Your task to perform on an android device: Search for "energizer triple a" on target.com, select the first entry, add it to the cart, then select checkout. Image 0: 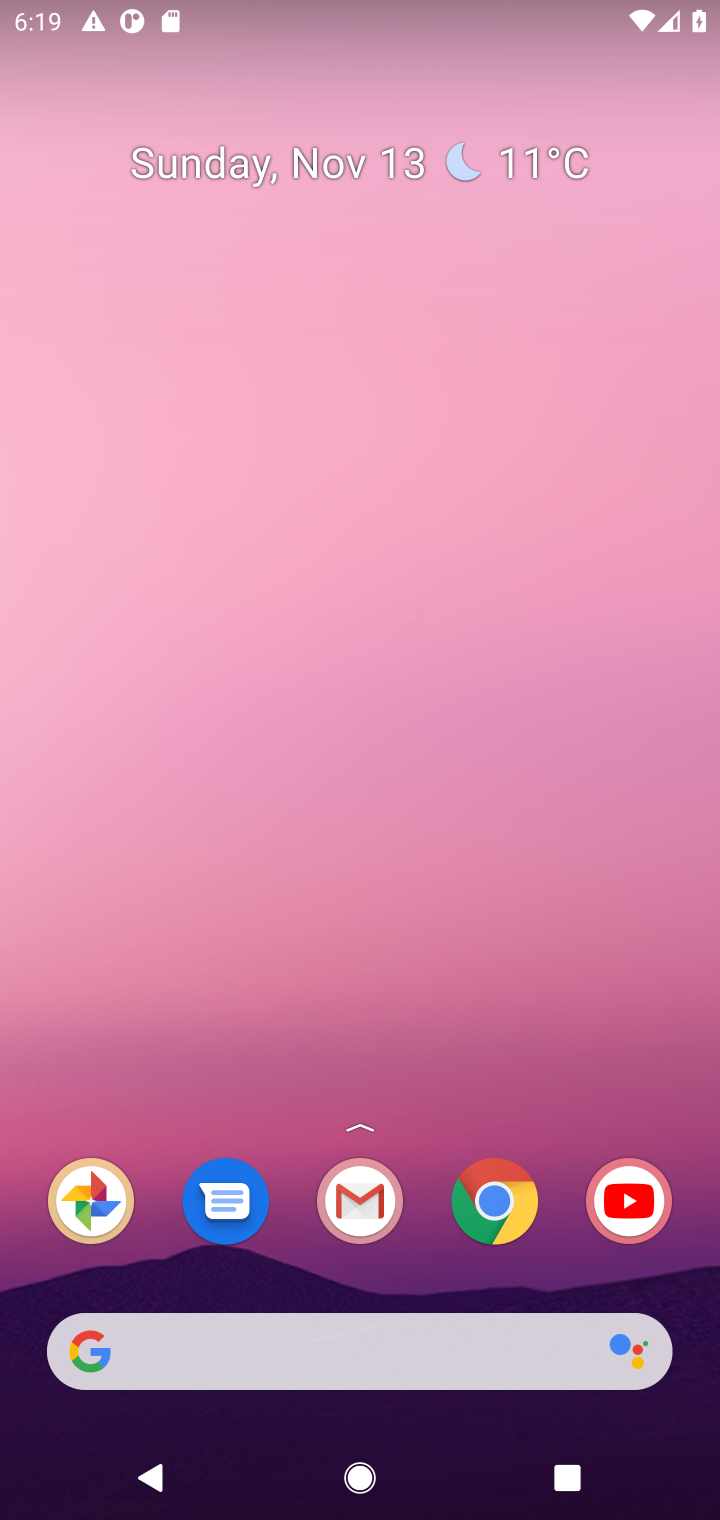
Step 0: drag from (404, 912) to (400, 187)
Your task to perform on an android device: Search for "energizer triple a" on target.com, select the first entry, add it to the cart, then select checkout. Image 1: 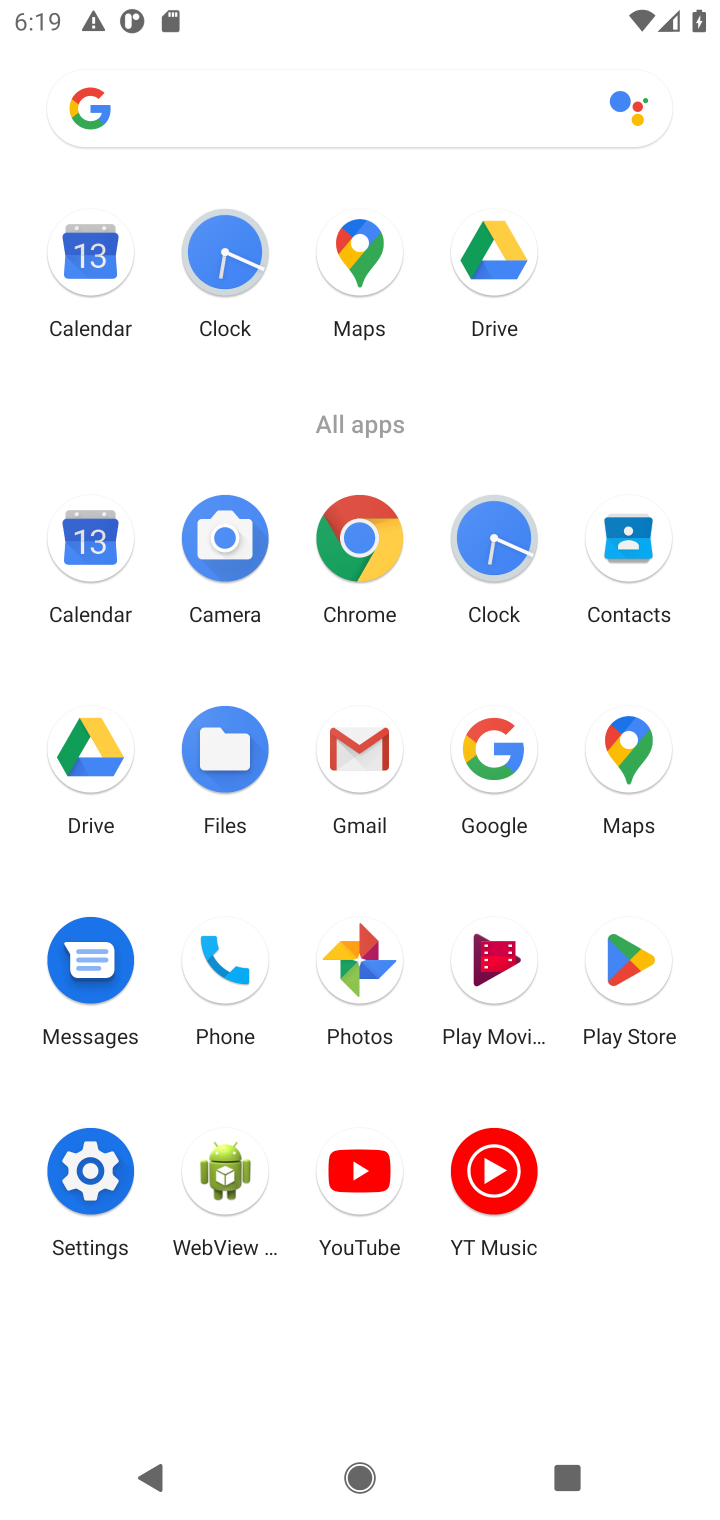
Step 1: click (355, 540)
Your task to perform on an android device: Search for "energizer triple a" on target.com, select the first entry, add it to the cart, then select checkout. Image 2: 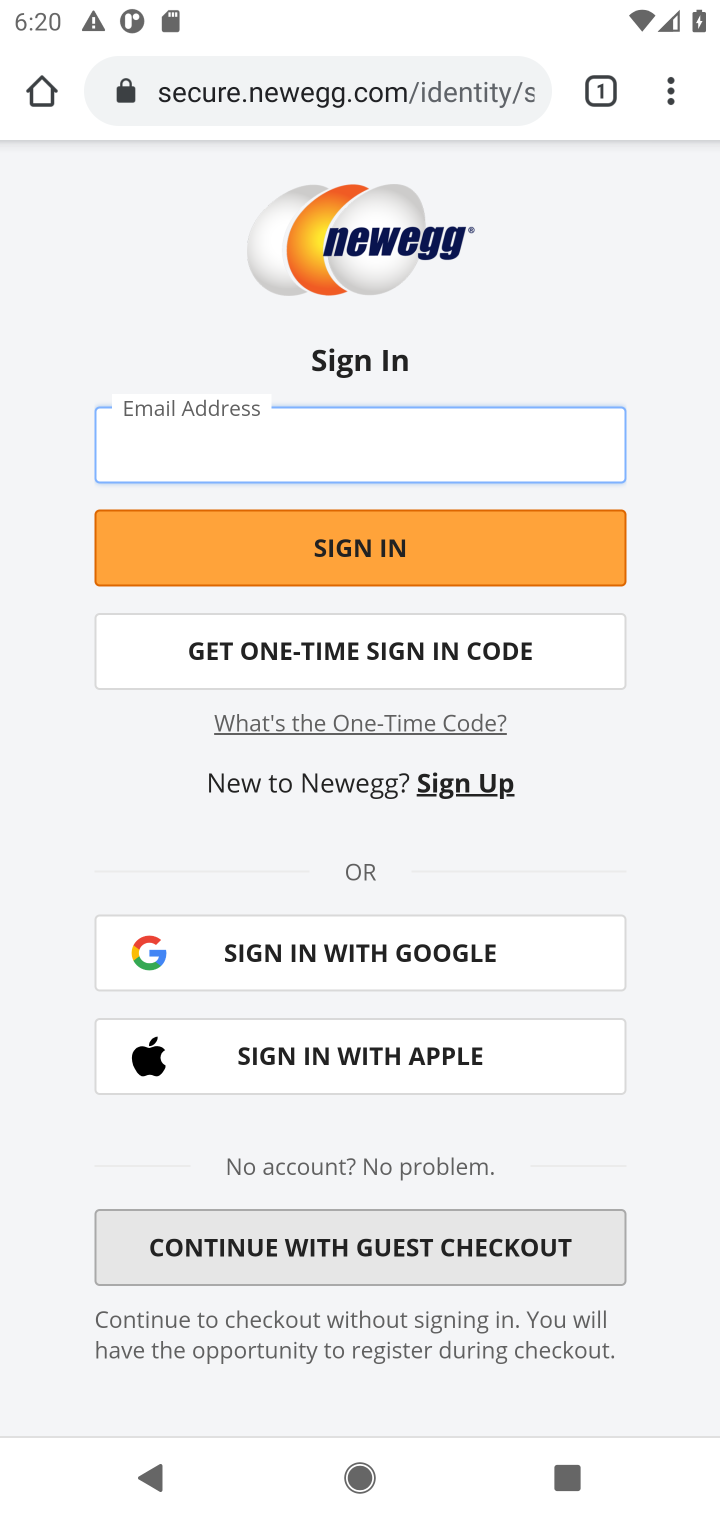
Step 2: click (291, 83)
Your task to perform on an android device: Search for "energizer triple a" on target.com, select the first entry, add it to the cart, then select checkout. Image 3: 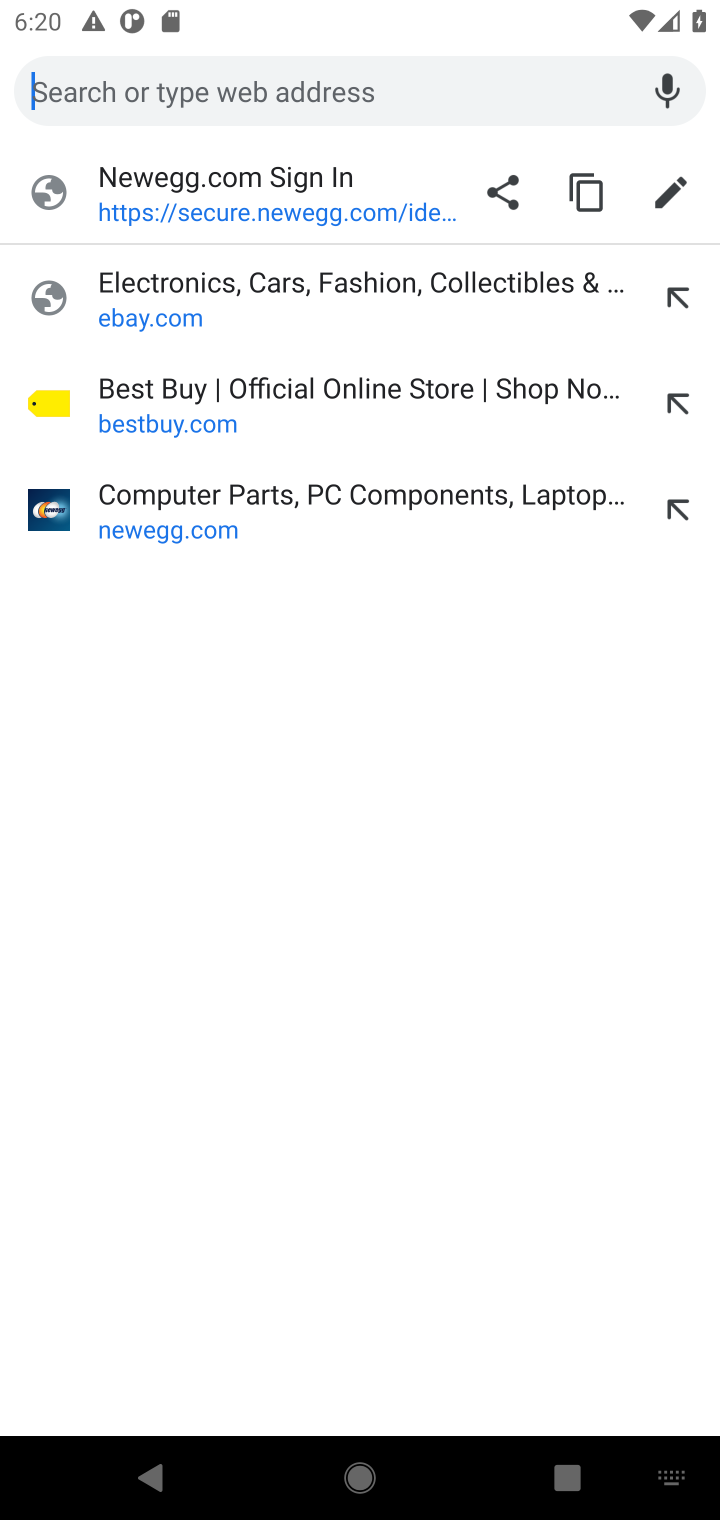
Step 3: type "target.com"
Your task to perform on an android device: Search for "energizer triple a" on target.com, select the first entry, add it to the cart, then select checkout. Image 4: 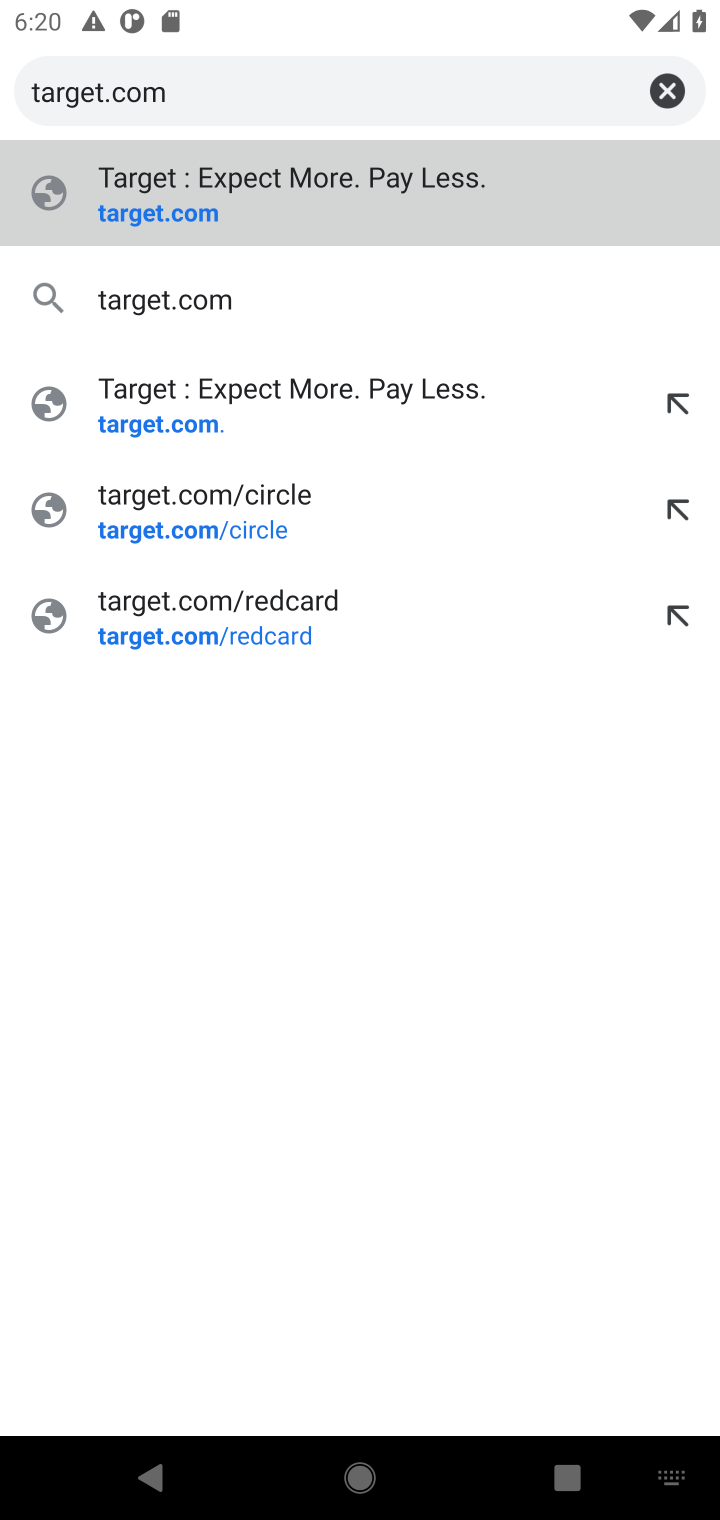
Step 4: press enter
Your task to perform on an android device: Search for "energizer triple a" on target.com, select the first entry, add it to the cart, then select checkout. Image 5: 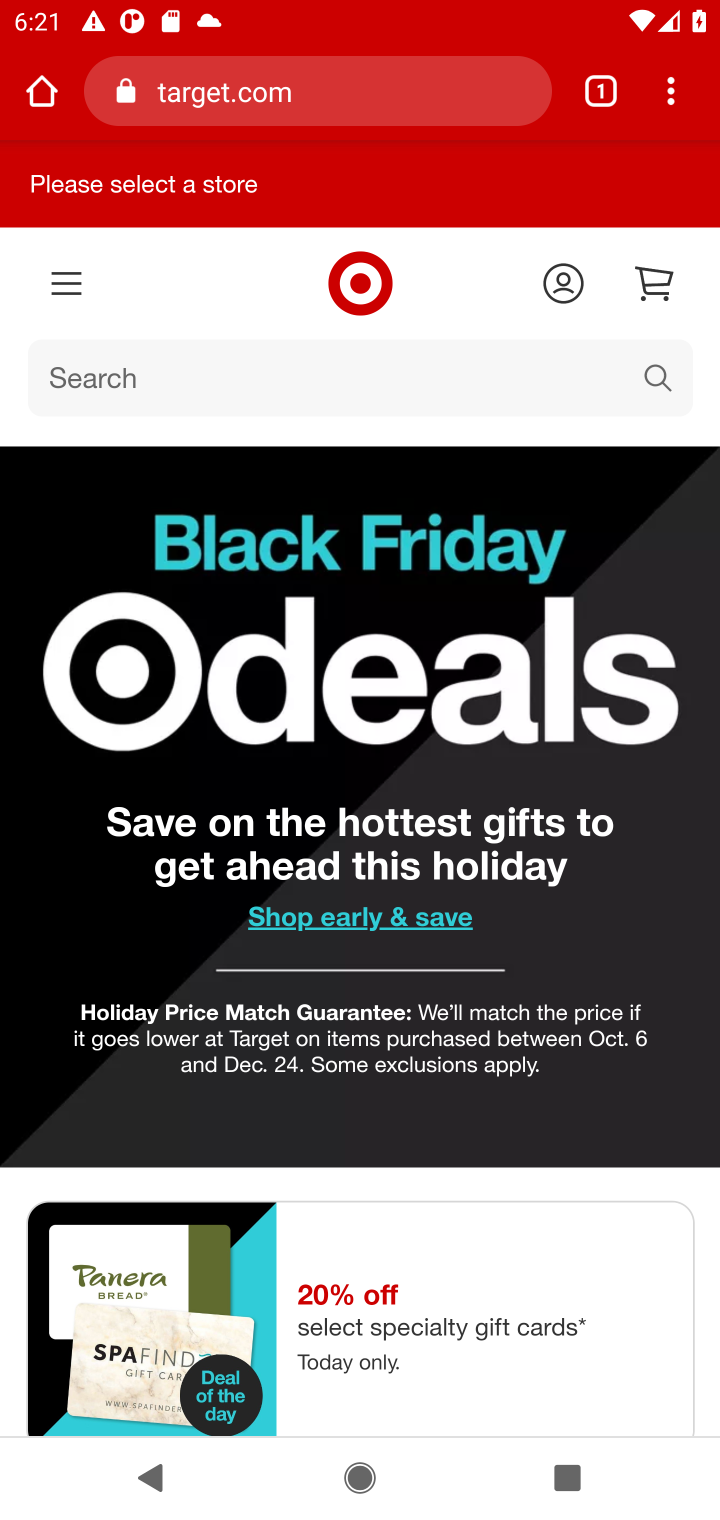
Step 5: click (255, 380)
Your task to perform on an android device: Search for "energizer triple a" on target.com, select the first entry, add it to the cart, then select checkout. Image 6: 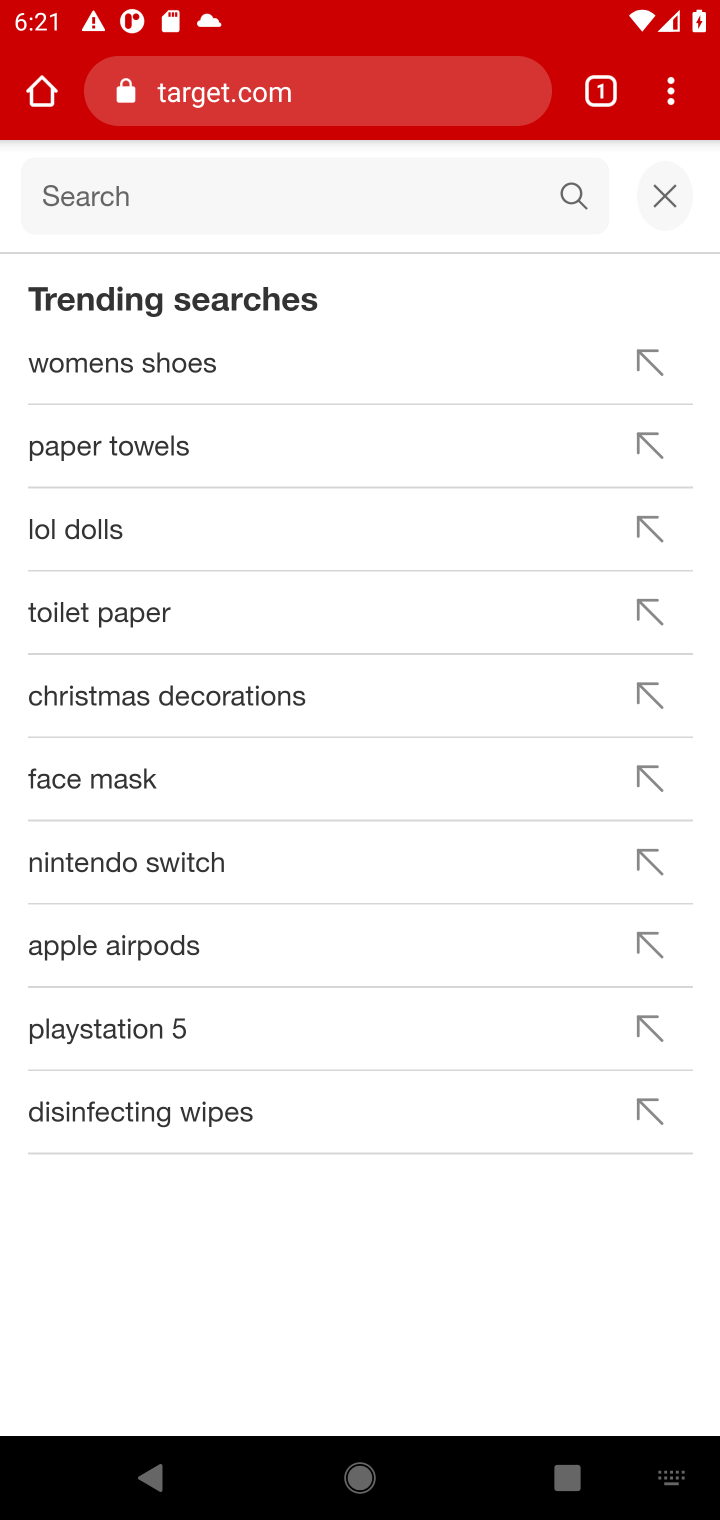
Step 6: type "energizer triple a"
Your task to perform on an android device: Search for "energizer triple a" on target.com, select the first entry, add it to the cart, then select checkout. Image 7: 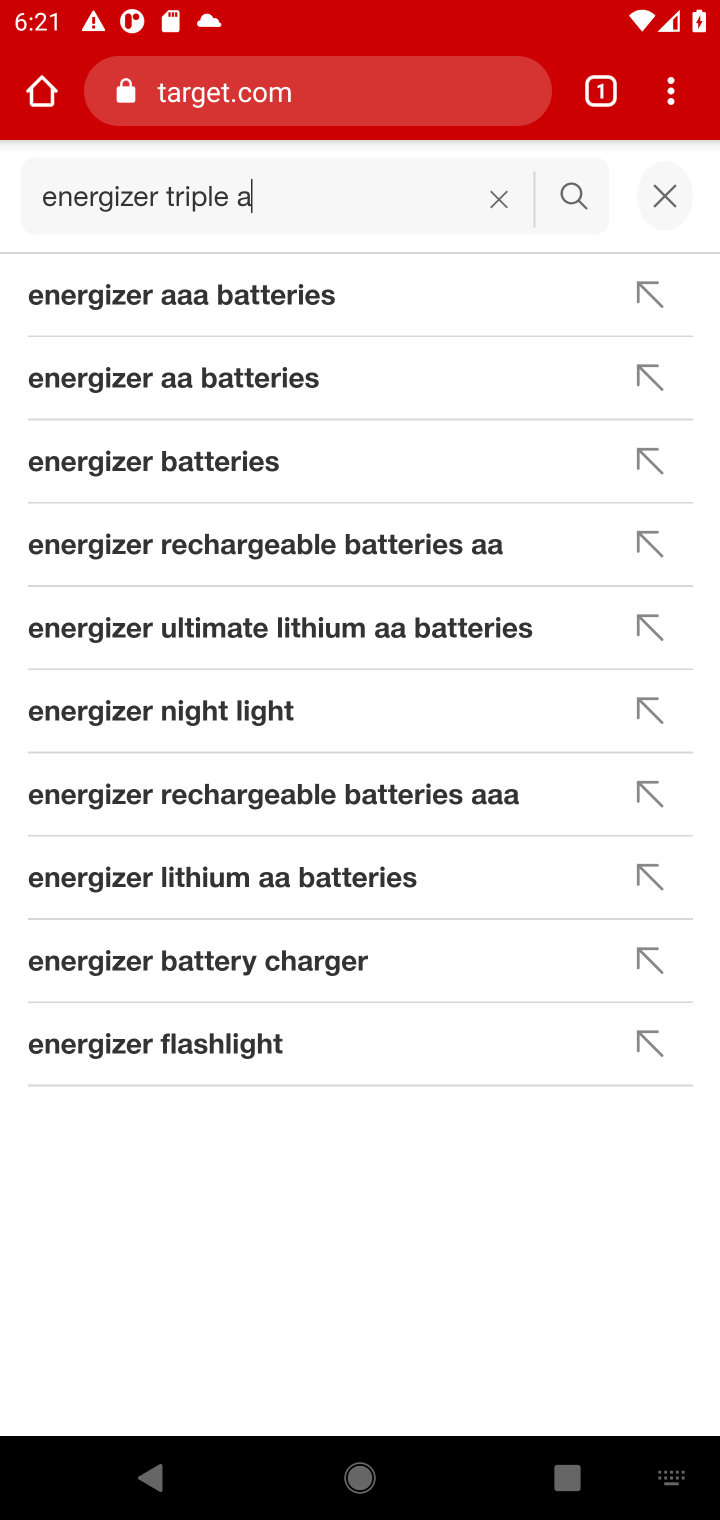
Step 7: press enter
Your task to perform on an android device: Search for "energizer triple a" on target.com, select the first entry, add it to the cart, then select checkout. Image 8: 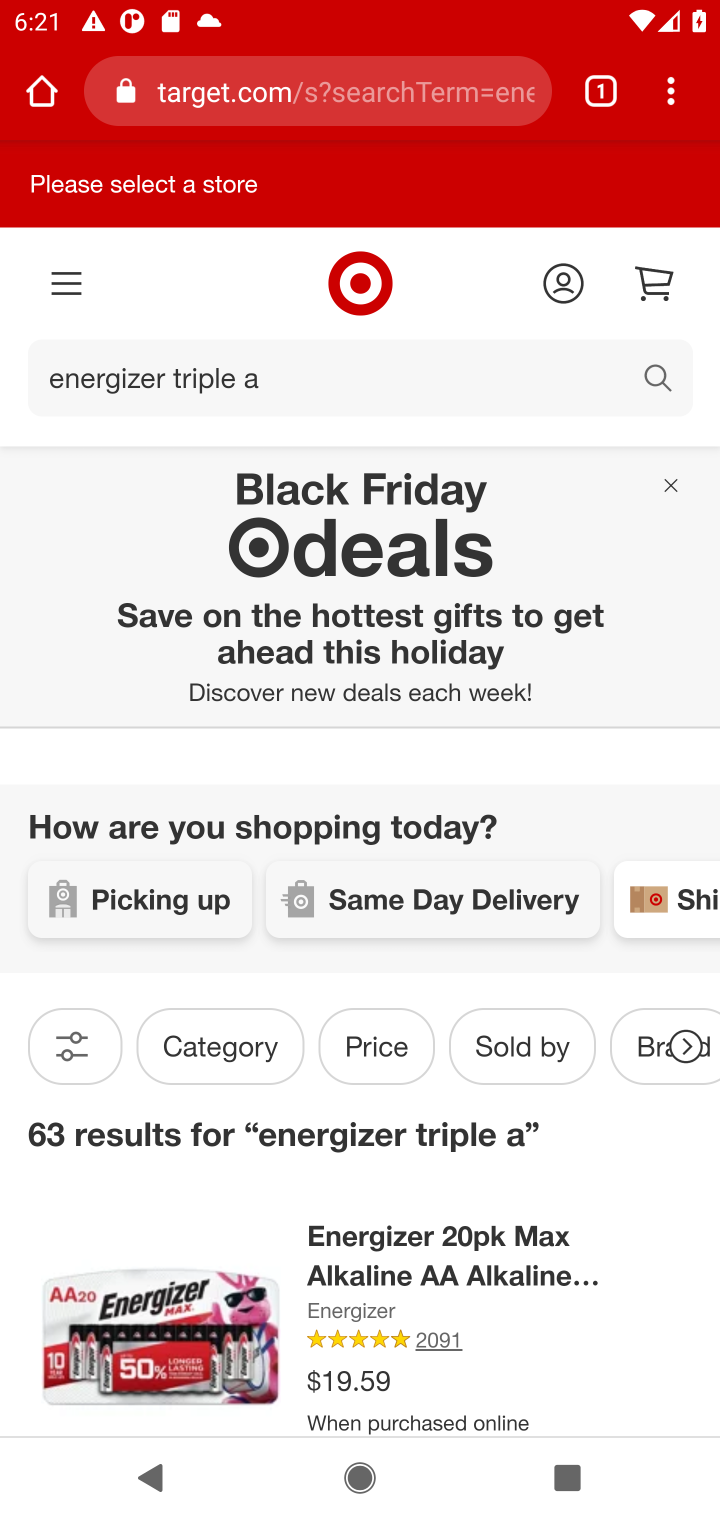
Step 8: drag from (432, 1281) to (418, 414)
Your task to perform on an android device: Search for "energizer triple a" on target.com, select the first entry, add it to the cart, then select checkout. Image 9: 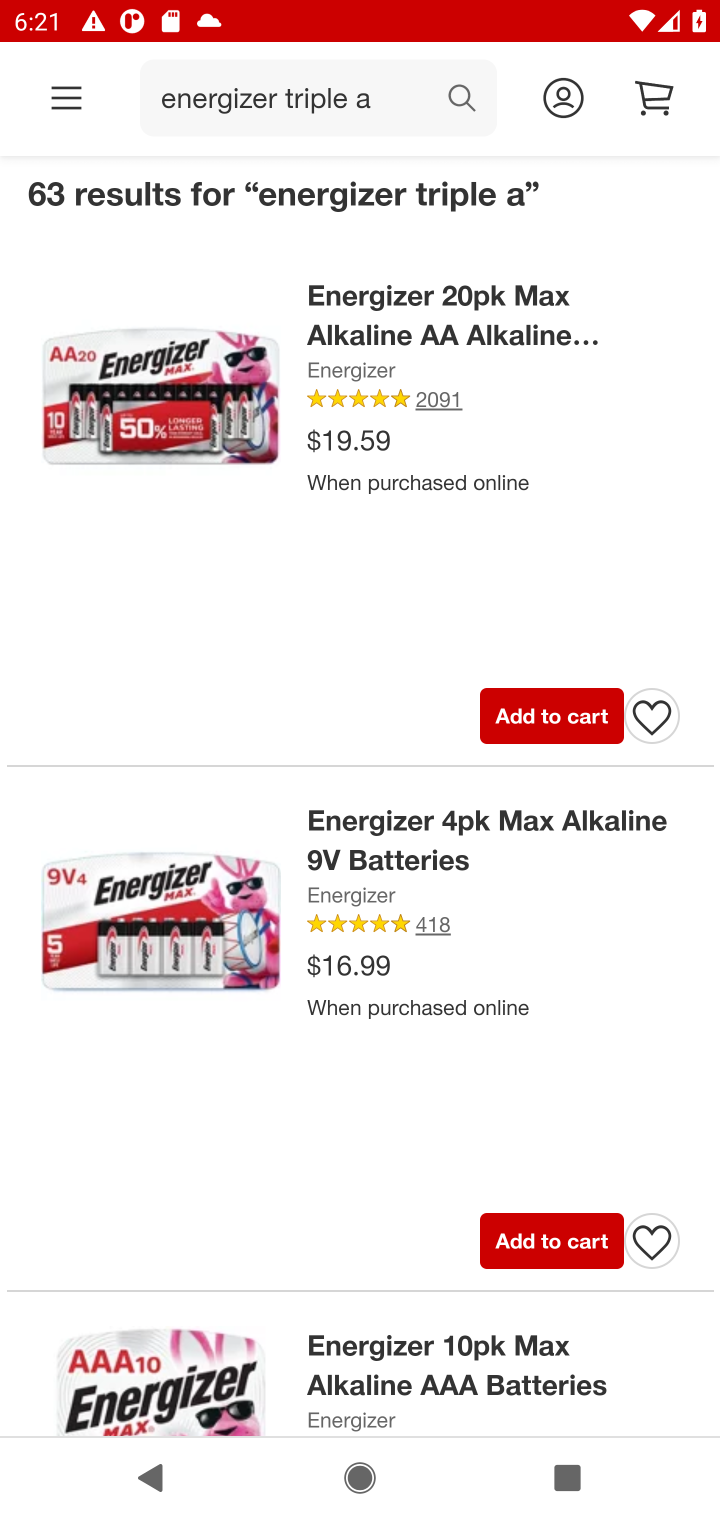
Step 9: drag from (301, 568) to (320, 935)
Your task to perform on an android device: Search for "energizer triple a" on target.com, select the first entry, add it to the cart, then select checkout. Image 10: 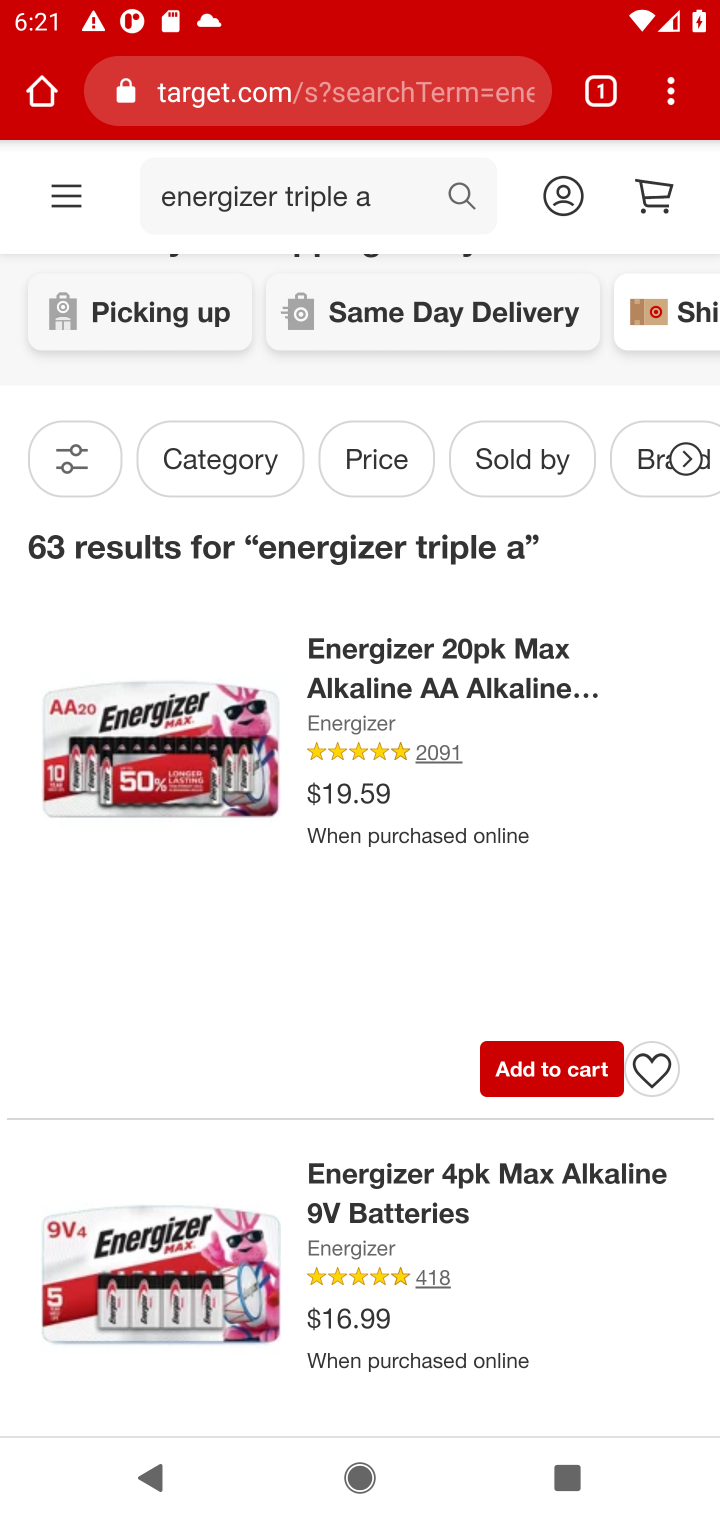
Step 10: click (557, 1054)
Your task to perform on an android device: Search for "energizer triple a" on target.com, select the first entry, add it to the cart, then select checkout. Image 11: 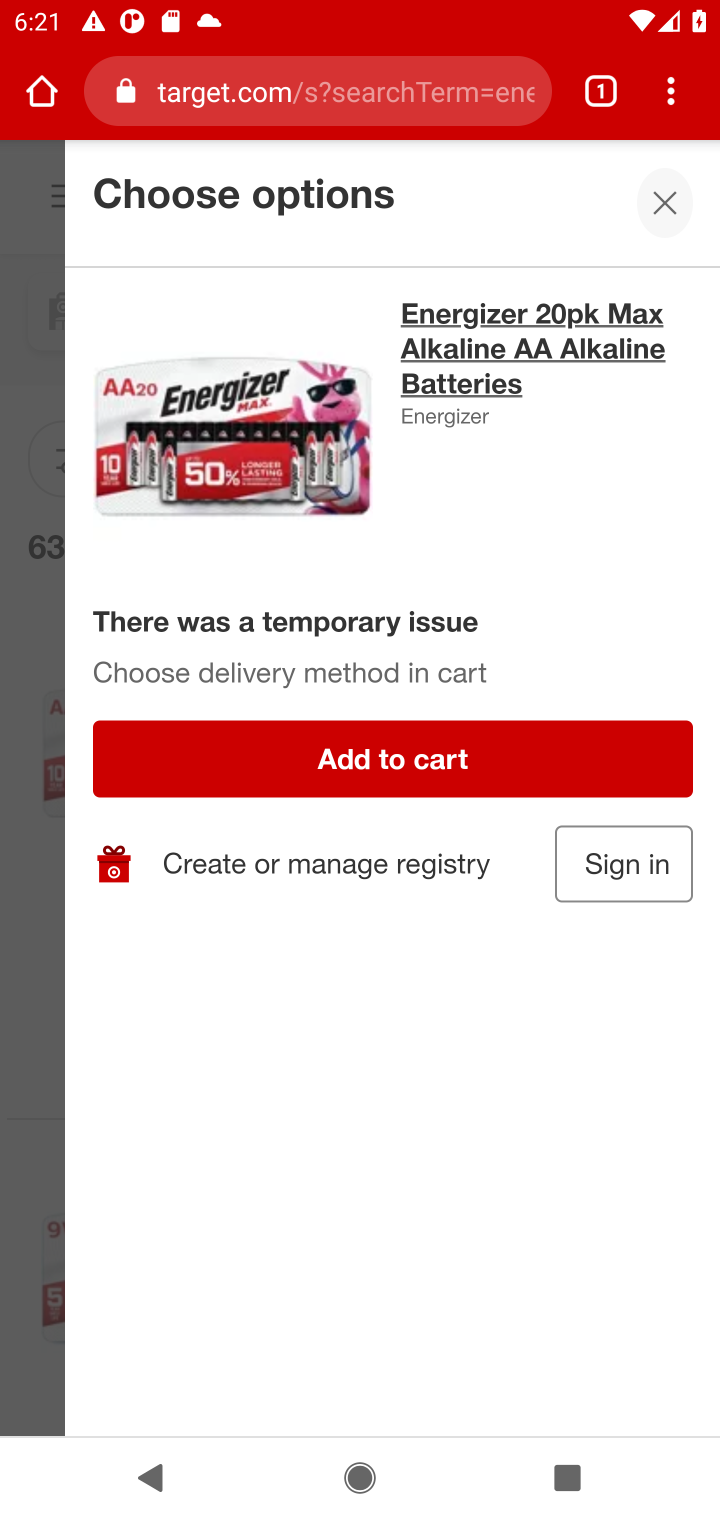
Step 11: click (491, 772)
Your task to perform on an android device: Search for "energizer triple a" on target.com, select the first entry, add it to the cart, then select checkout. Image 12: 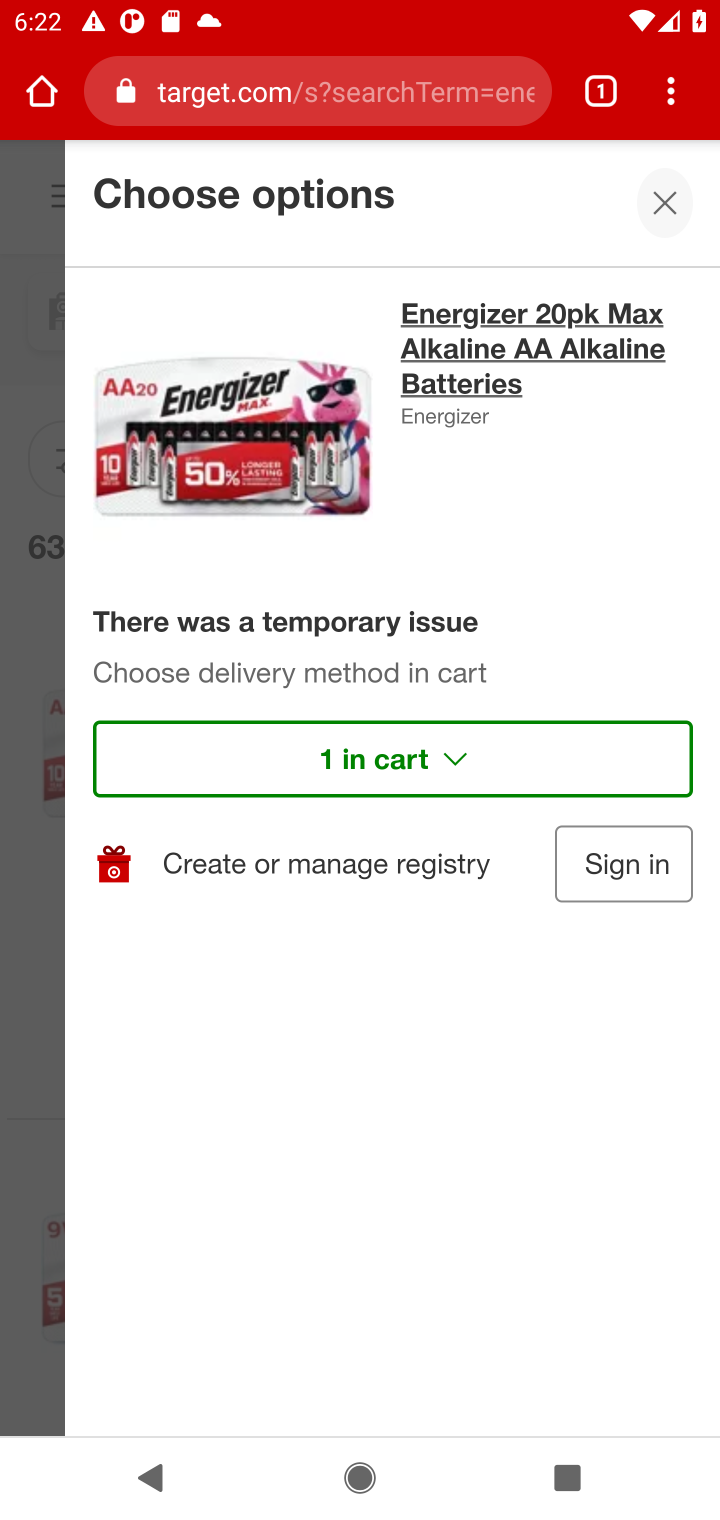
Step 12: click (468, 752)
Your task to perform on an android device: Search for "energizer triple a" on target.com, select the first entry, add it to the cart, then select checkout. Image 13: 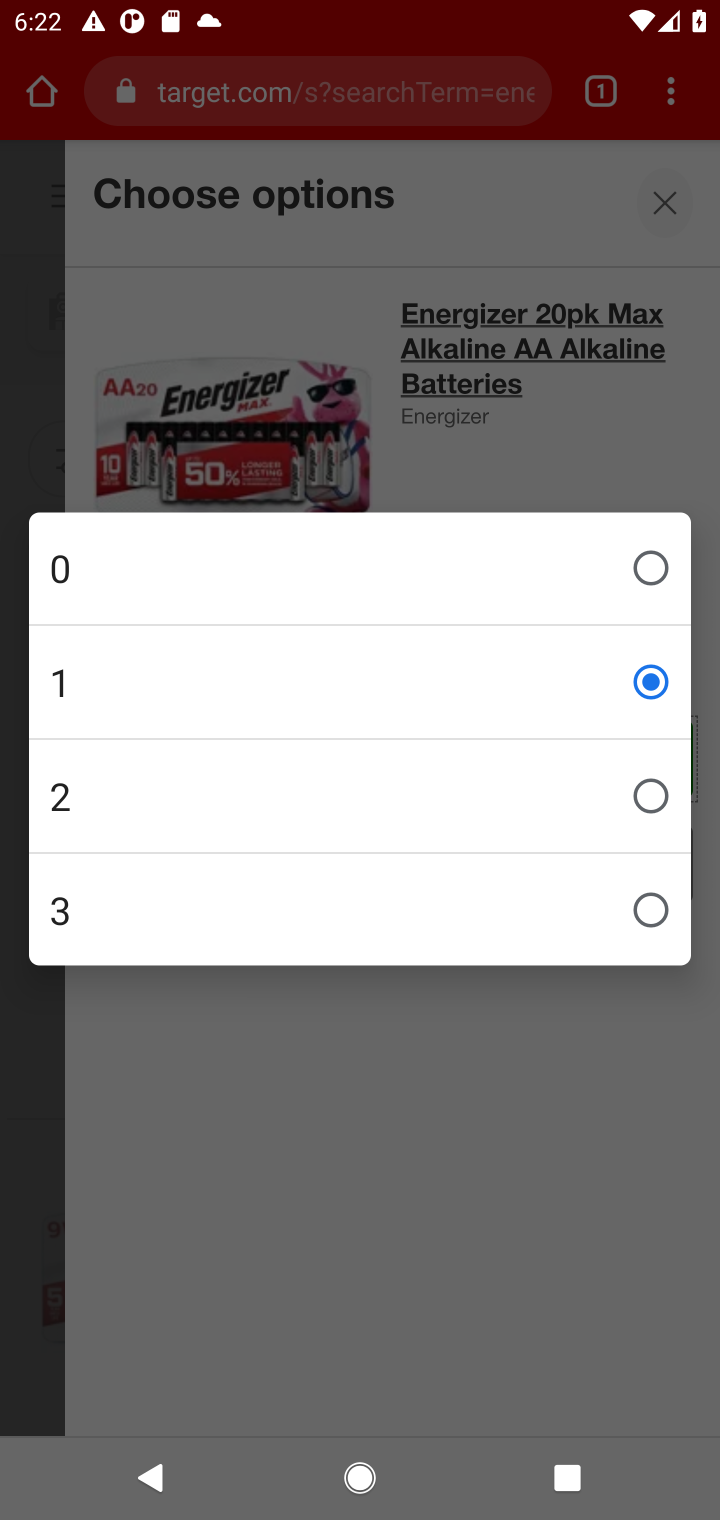
Step 13: click (432, 1096)
Your task to perform on an android device: Search for "energizer triple a" on target.com, select the first entry, add it to the cart, then select checkout. Image 14: 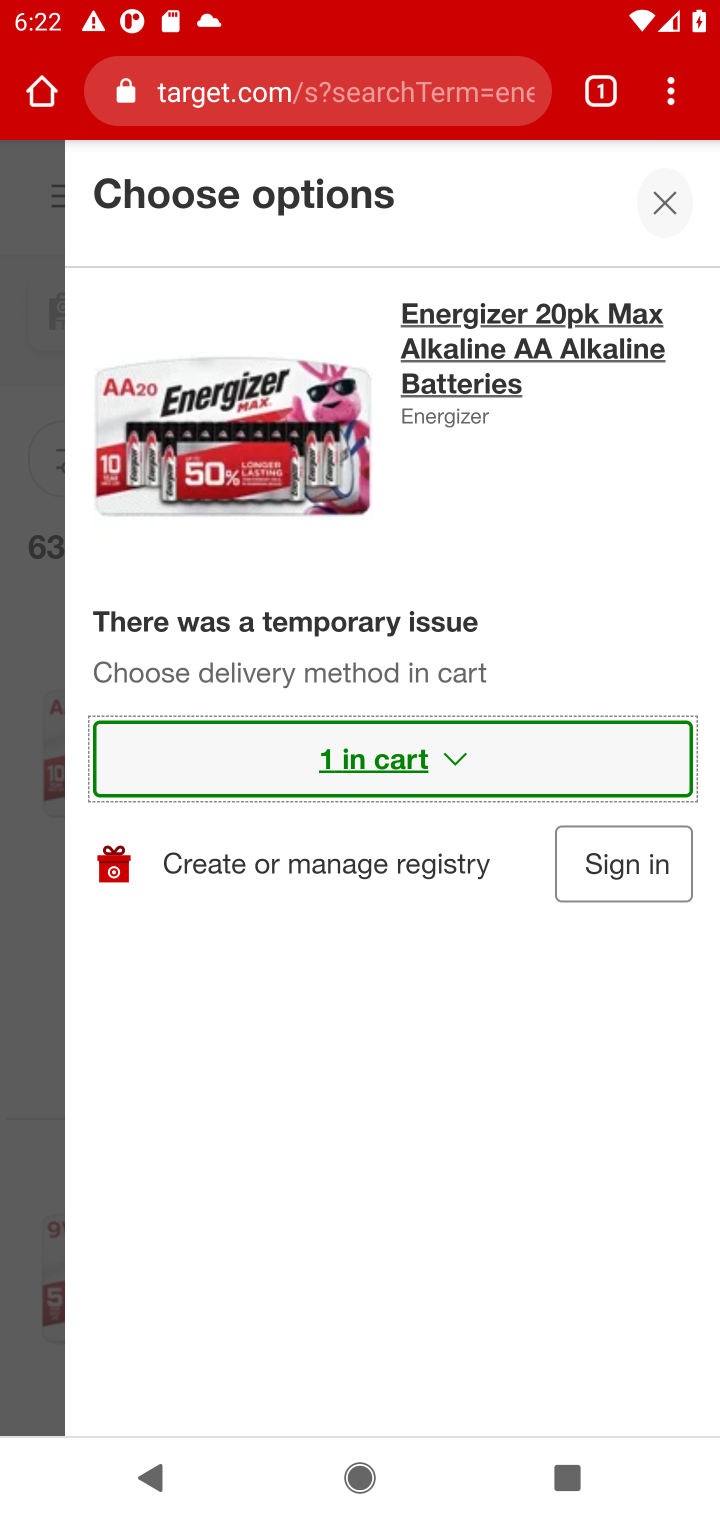
Step 14: press back button
Your task to perform on an android device: Search for "energizer triple a" on target.com, select the first entry, add it to the cart, then select checkout. Image 15: 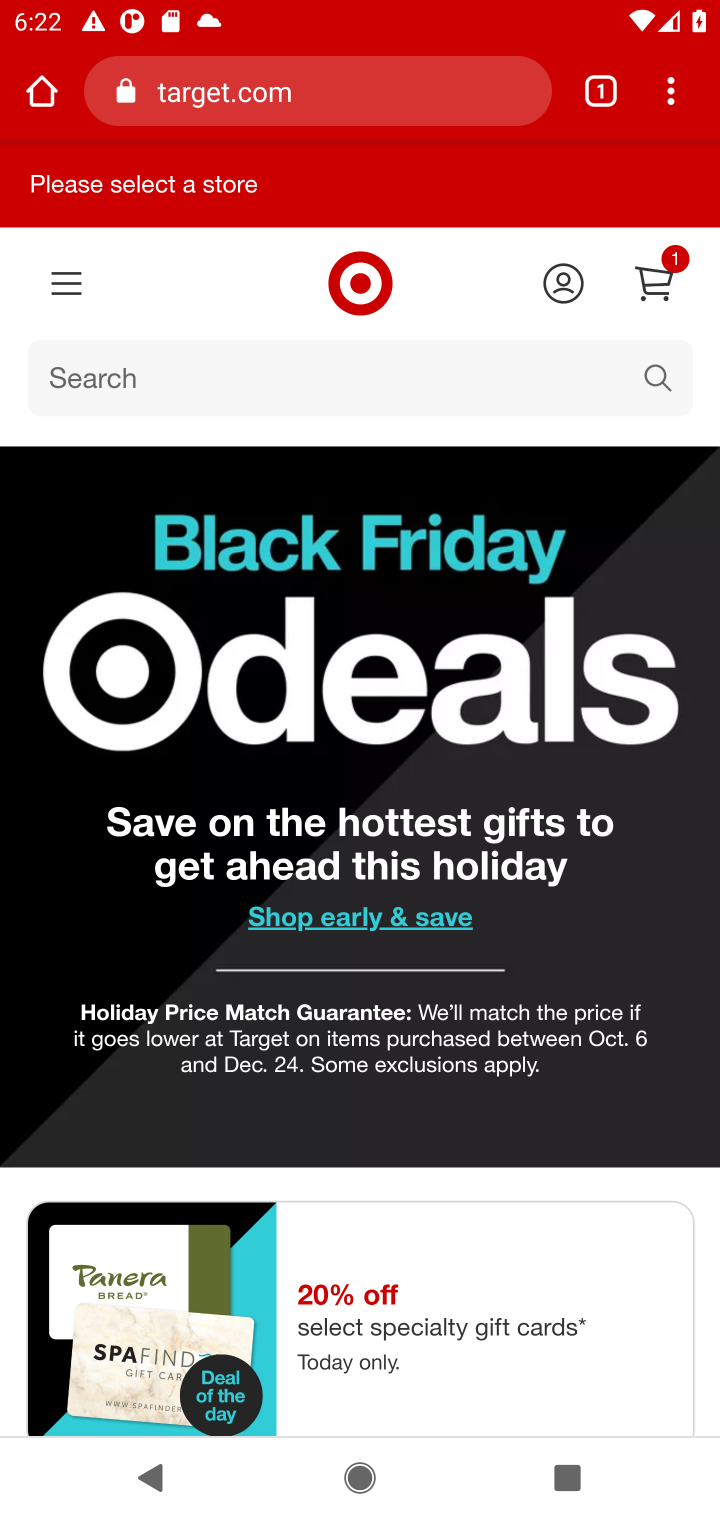
Step 15: click (662, 263)
Your task to perform on an android device: Search for "energizer triple a" on target.com, select the first entry, add it to the cart, then select checkout. Image 16: 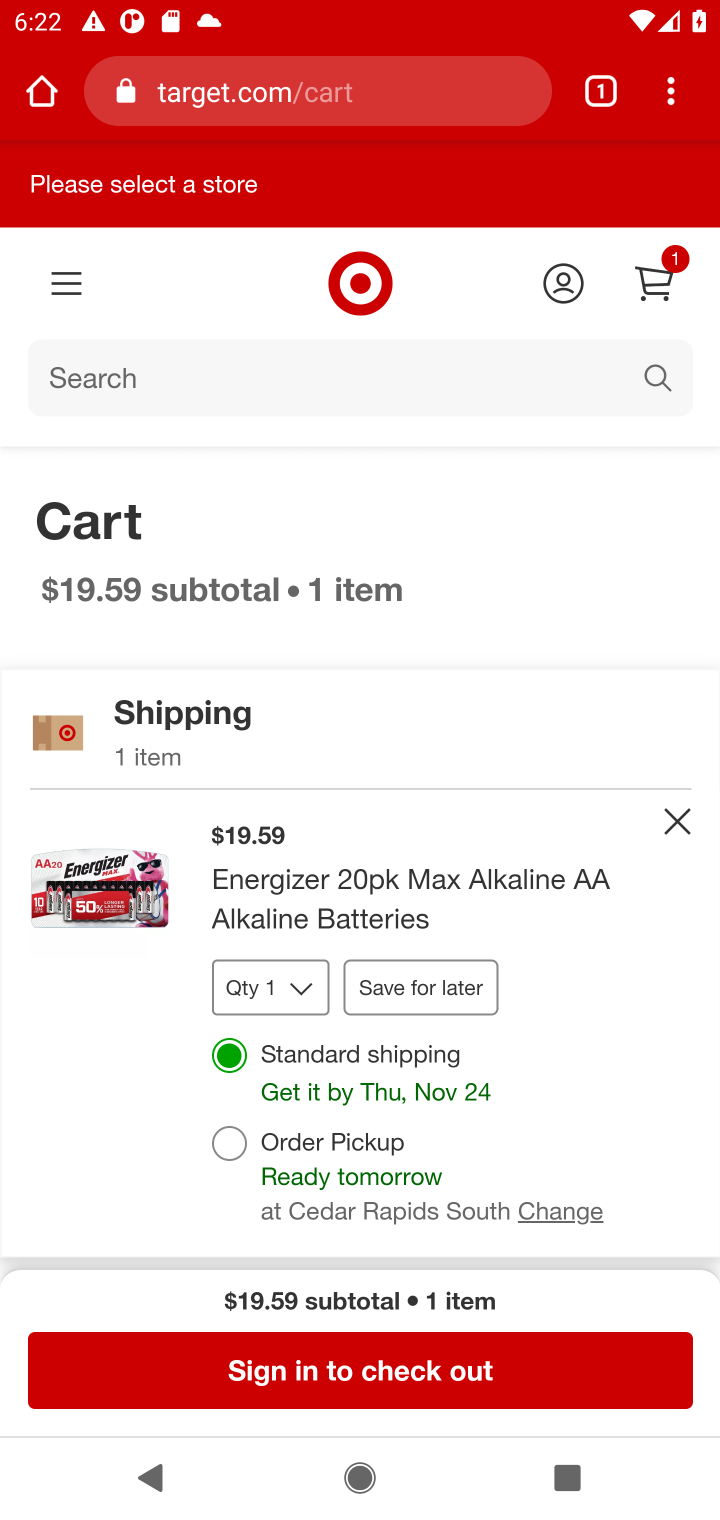
Step 16: click (488, 1370)
Your task to perform on an android device: Search for "energizer triple a" on target.com, select the first entry, add it to the cart, then select checkout. Image 17: 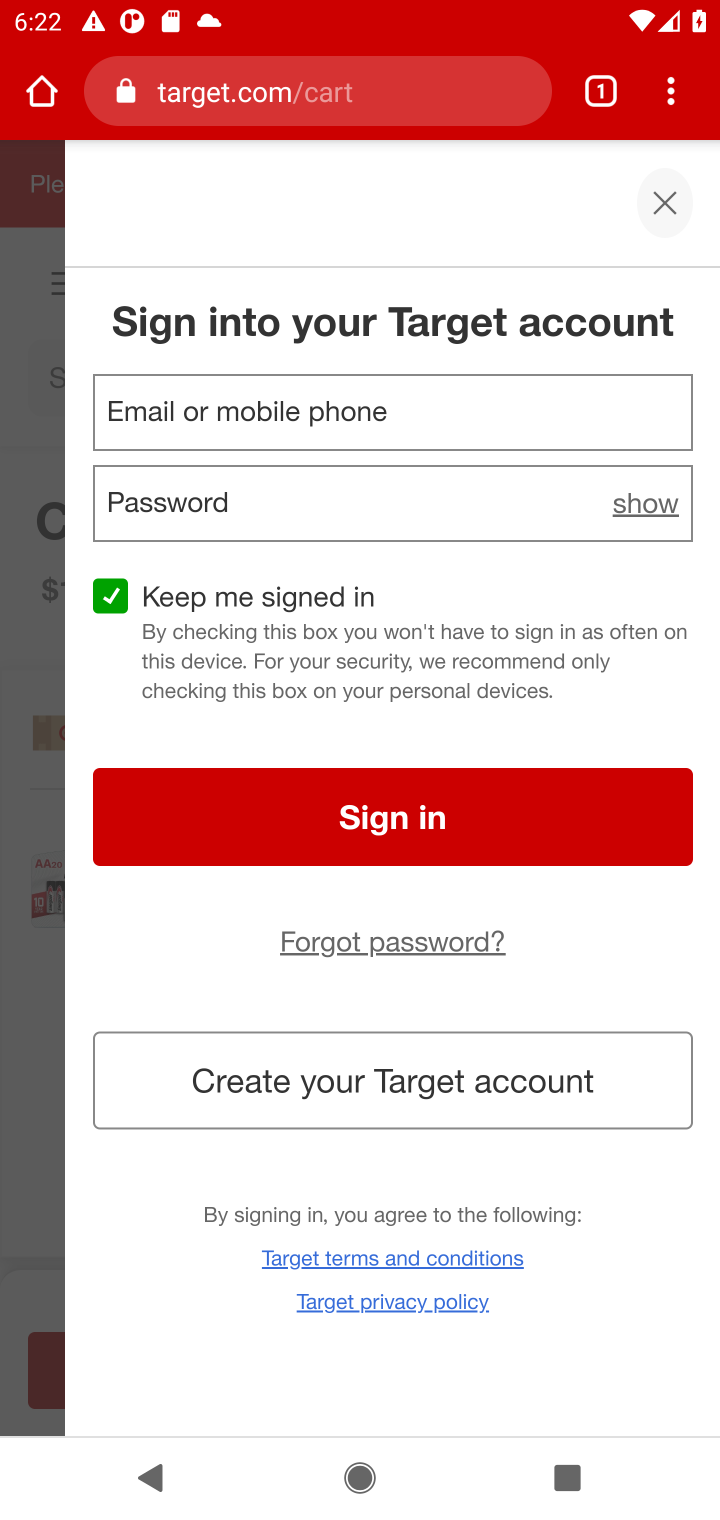
Step 17: task complete